Your task to perform on an android device: check out phone information Image 0: 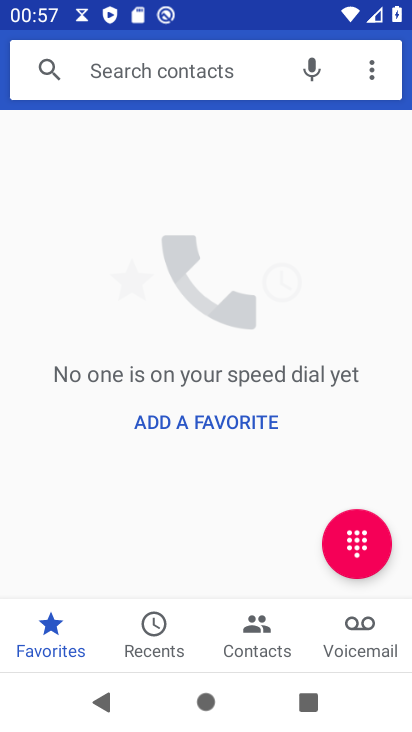
Step 0: press home button
Your task to perform on an android device: check out phone information Image 1: 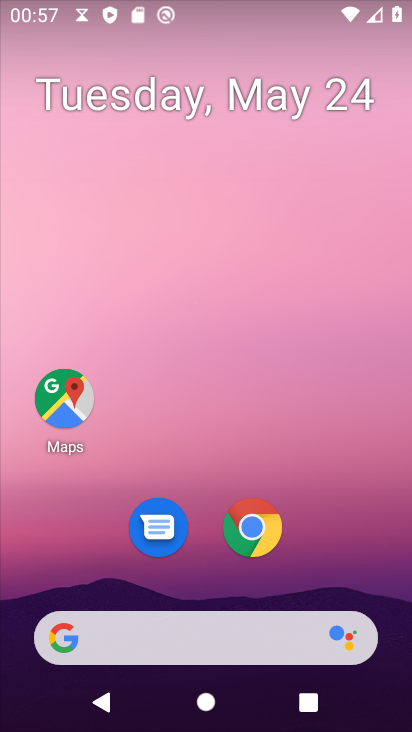
Step 1: drag from (199, 622) to (274, 75)
Your task to perform on an android device: check out phone information Image 2: 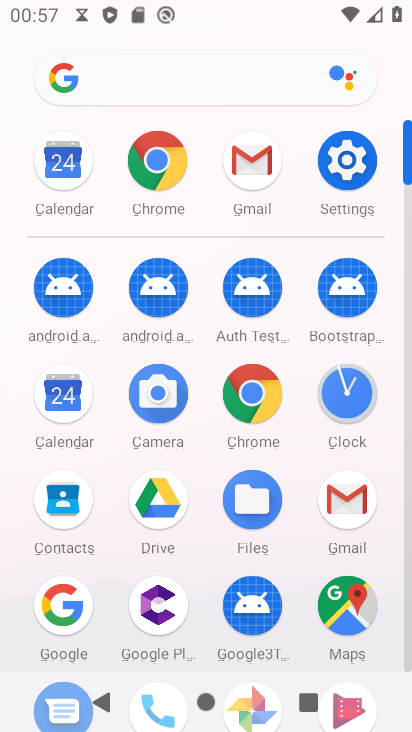
Step 2: drag from (179, 523) to (322, 6)
Your task to perform on an android device: check out phone information Image 3: 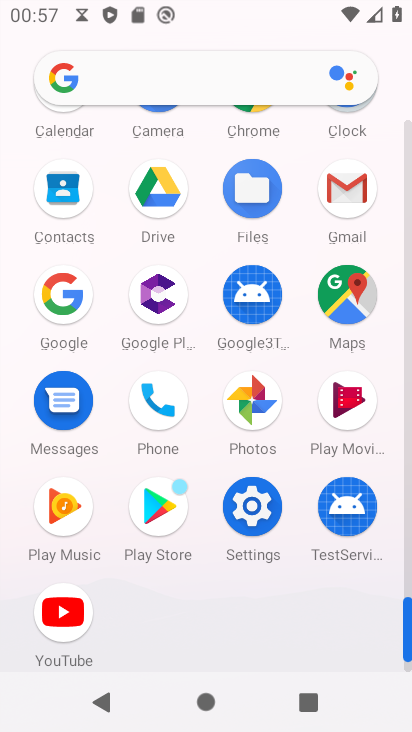
Step 3: click (253, 514)
Your task to perform on an android device: check out phone information Image 4: 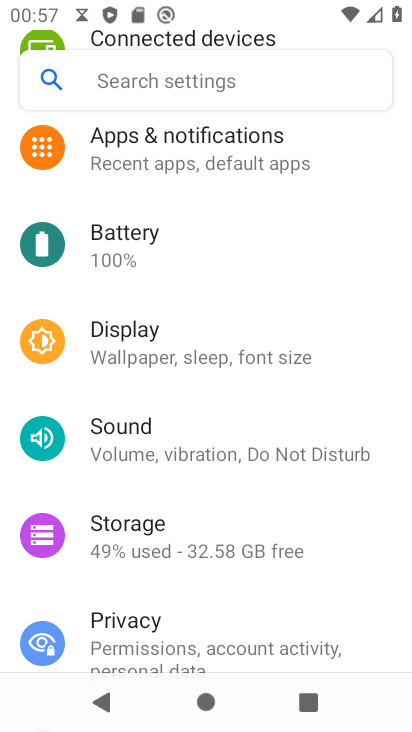
Step 4: drag from (264, 652) to (353, 127)
Your task to perform on an android device: check out phone information Image 5: 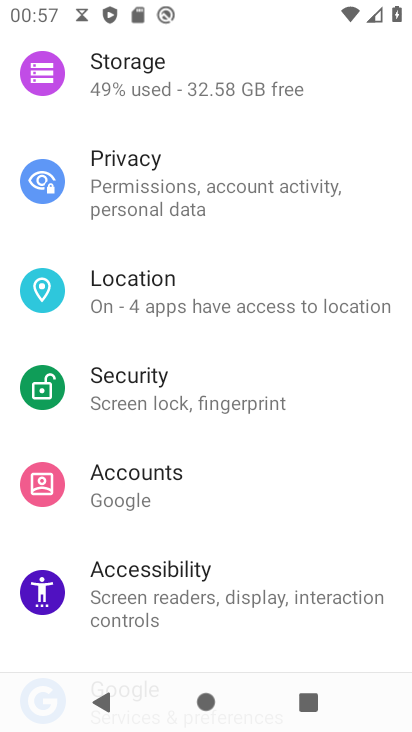
Step 5: drag from (287, 560) to (326, 115)
Your task to perform on an android device: check out phone information Image 6: 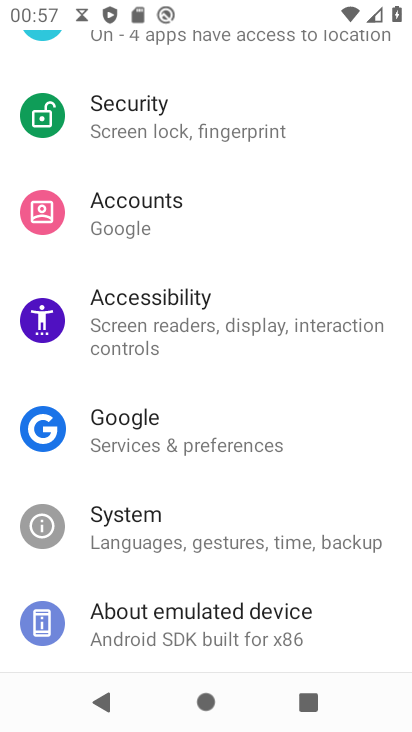
Step 6: drag from (294, 177) to (239, 598)
Your task to perform on an android device: check out phone information Image 7: 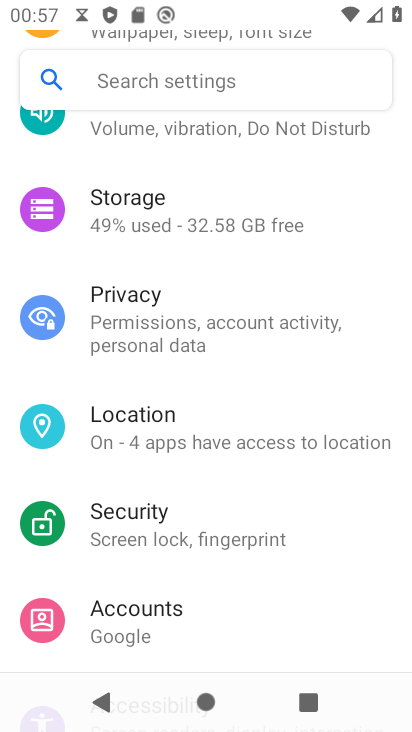
Step 7: click (188, 431)
Your task to perform on an android device: check out phone information Image 8: 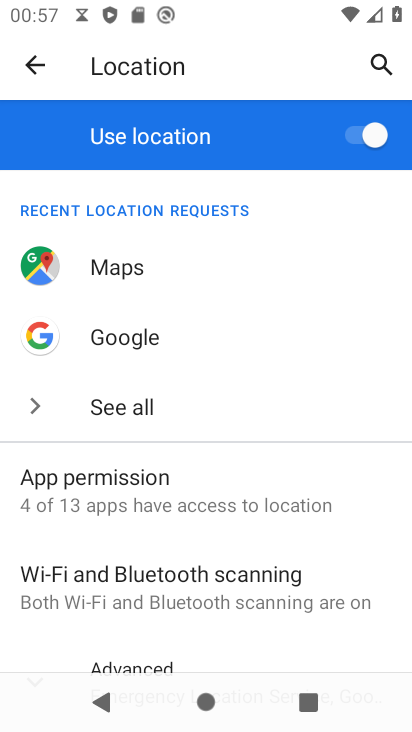
Step 8: click (158, 498)
Your task to perform on an android device: check out phone information Image 9: 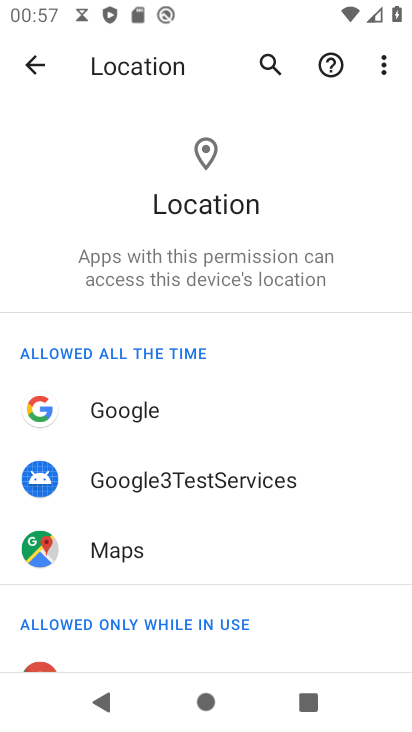
Step 9: drag from (235, 571) to (288, 261)
Your task to perform on an android device: check out phone information Image 10: 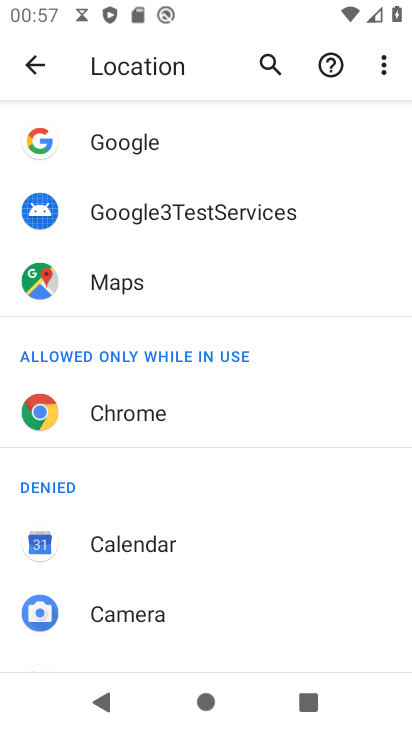
Step 10: drag from (239, 570) to (322, 212)
Your task to perform on an android device: check out phone information Image 11: 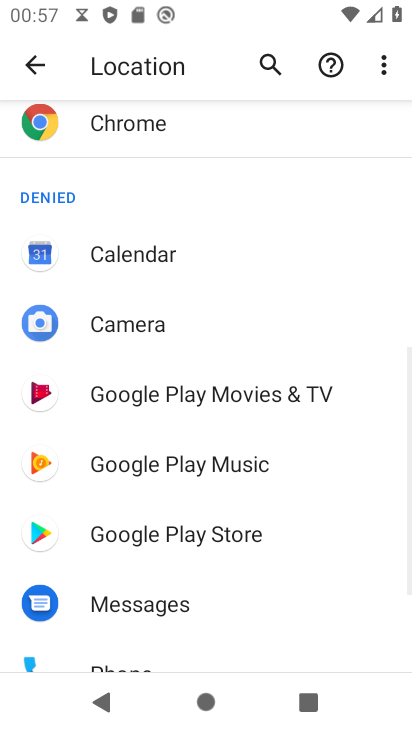
Step 11: drag from (254, 563) to (330, 148)
Your task to perform on an android device: check out phone information Image 12: 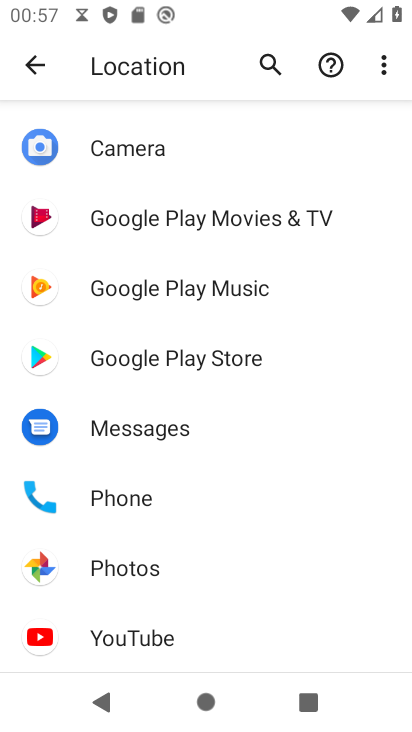
Step 12: click (116, 506)
Your task to perform on an android device: check out phone information Image 13: 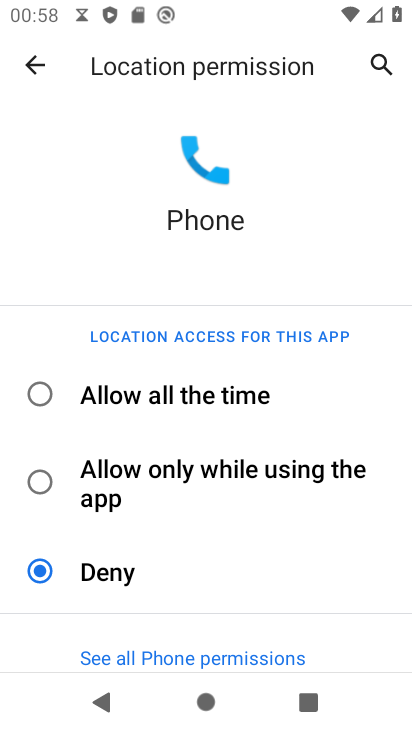
Step 13: task complete